Your task to perform on an android device: Open accessibility settings Image 0: 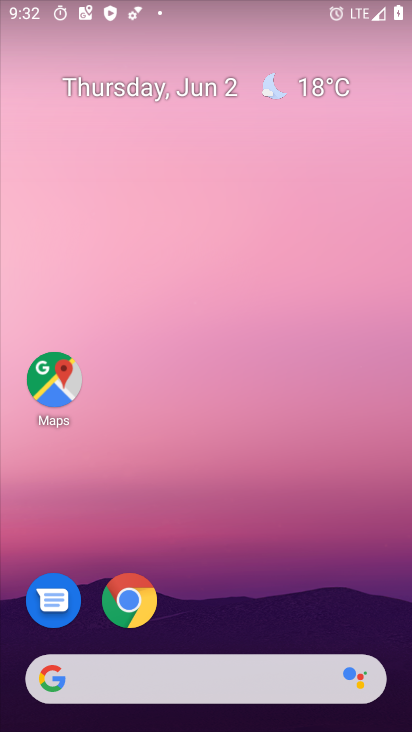
Step 0: drag from (378, 611) to (386, 194)
Your task to perform on an android device: Open accessibility settings Image 1: 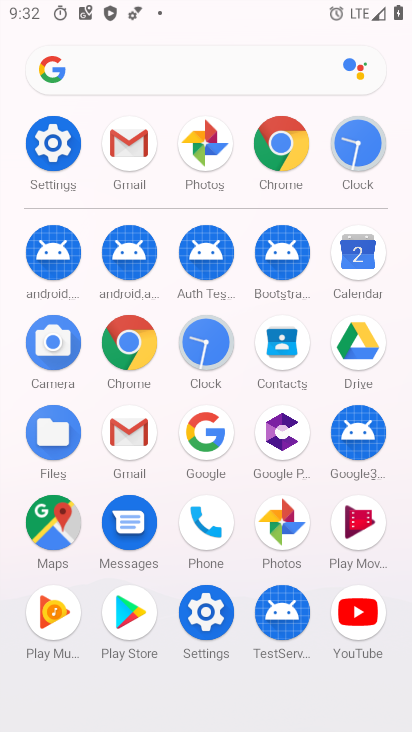
Step 1: click (60, 161)
Your task to perform on an android device: Open accessibility settings Image 2: 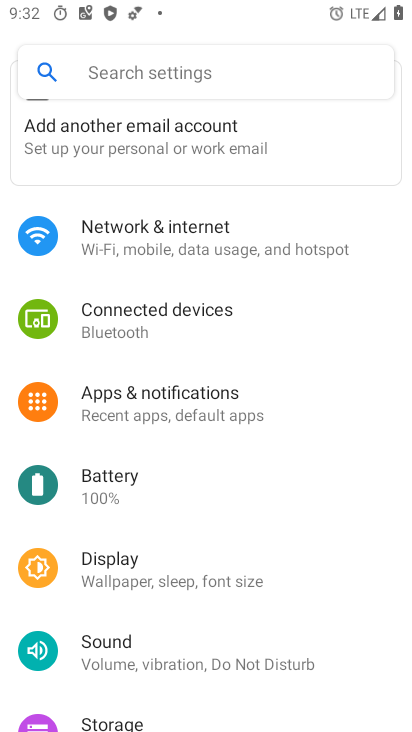
Step 2: drag from (297, 522) to (309, 282)
Your task to perform on an android device: Open accessibility settings Image 3: 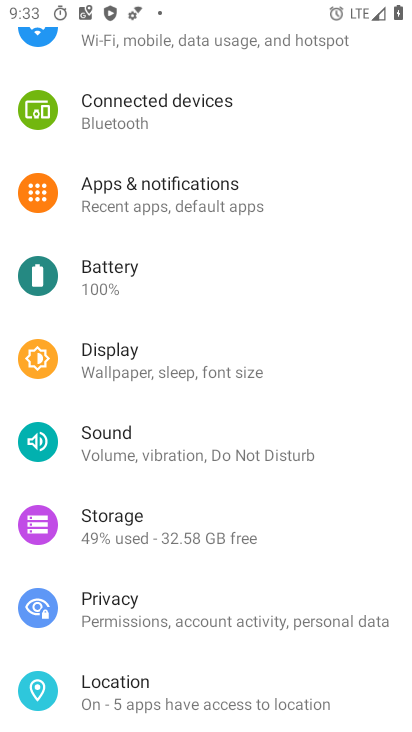
Step 3: drag from (345, 554) to (339, 379)
Your task to perform on an android device: Open accessibility settings Image 4: 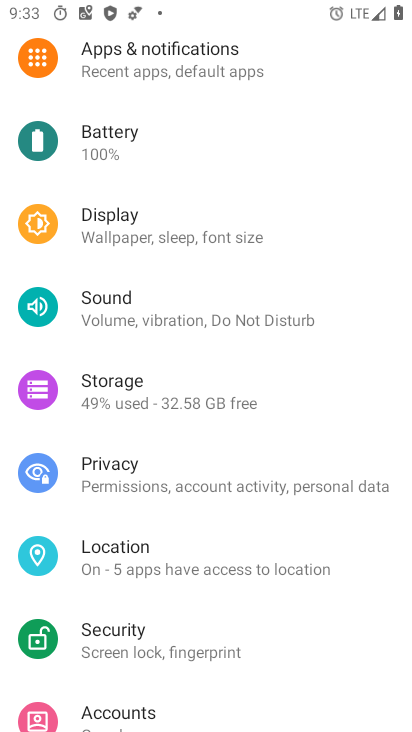
Step 4: drag from (346, 591) to (344, 404)
Your task to perform on an android device: Open accessibility settings Image 5: 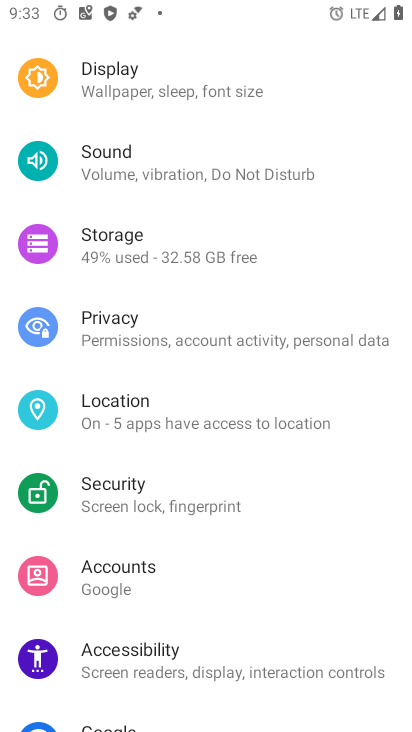
Step 5: drag from (334, 544) to (350, 385)
Your task to perform on an android device: Open accessibility settings Image 6: 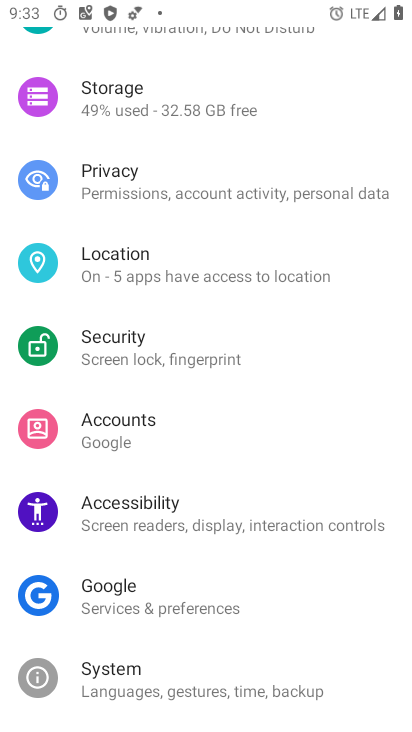
Step 6: drag from (353, 596) to (366, 429)
Your task to perform on an android device: Open accessibility settings Image 7: 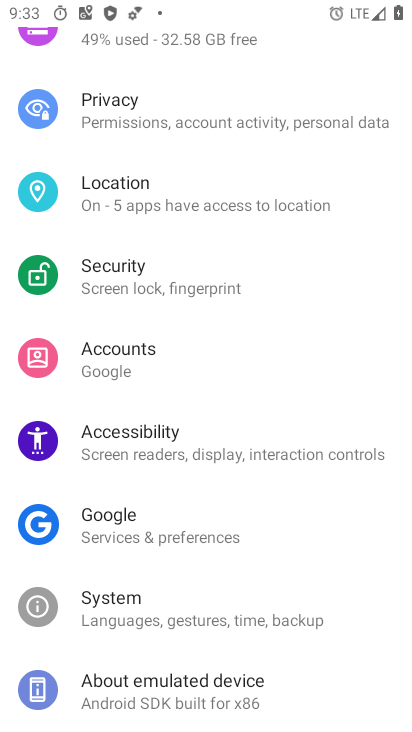
Step 7: click (283, 447)
Your task to perform on an android device: Open accessibility settings Image 8: 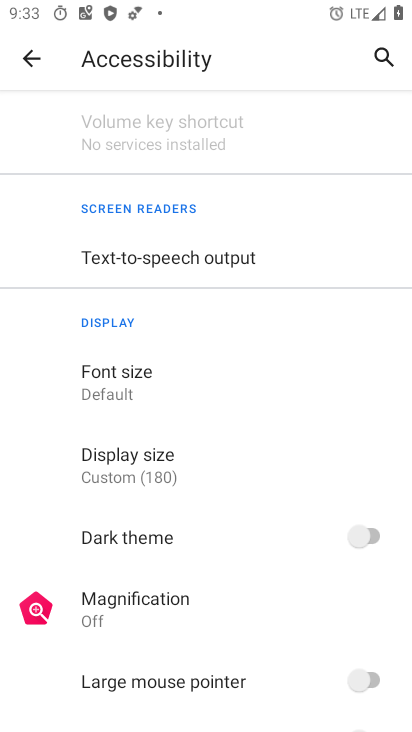
Step 8: task complete